Your task to perform on an android device: toggle javascript in the chrome app Image 0: 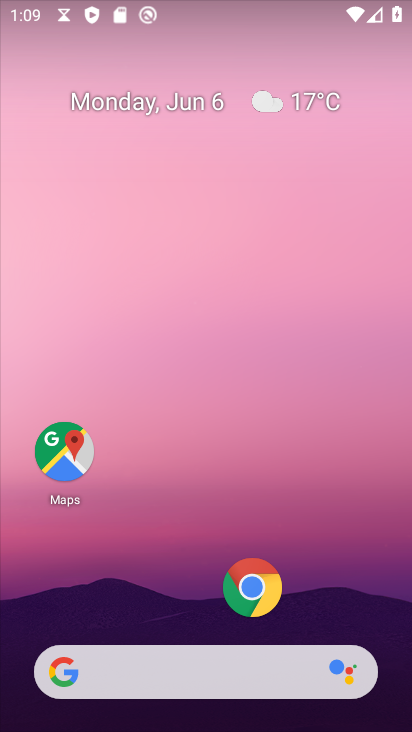
Step 0: click (243, 589)
Your task to perform on an android device: toggle javascript in the chrome app Image 1: 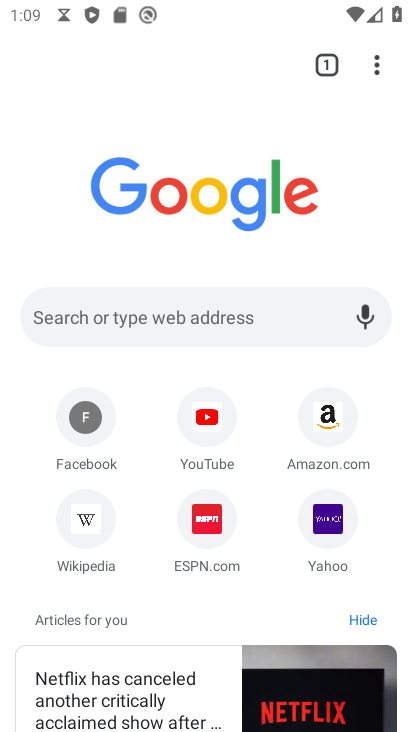
Step 1: click (377, 61)
Your task to perform on an android device: toggle javascript in the chrome app Image 2: 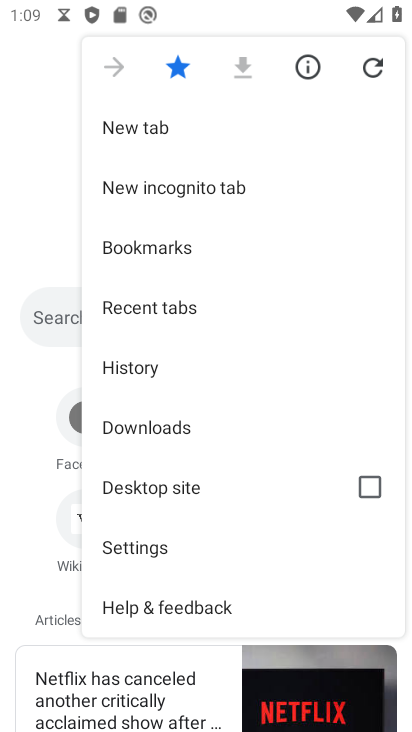
Step 2: drag from (225, 550) to (265, 257)
Your task to perform on an android device: toggle javascript in the chrome app Image 3: 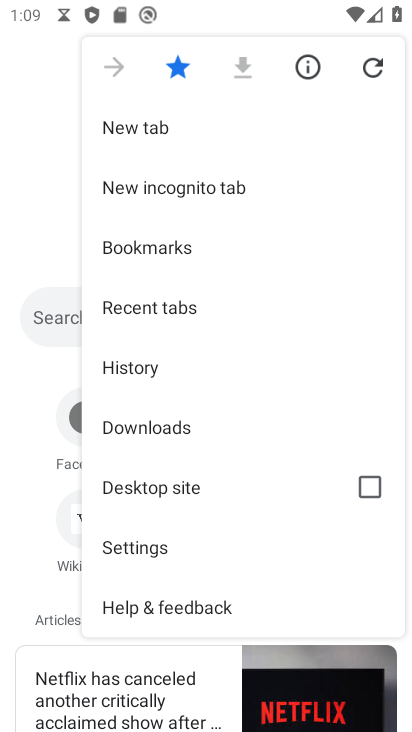
Step 3: click (161, 554)
Your task to perform on an android device: toggle javascript in the chrome app Image 4: 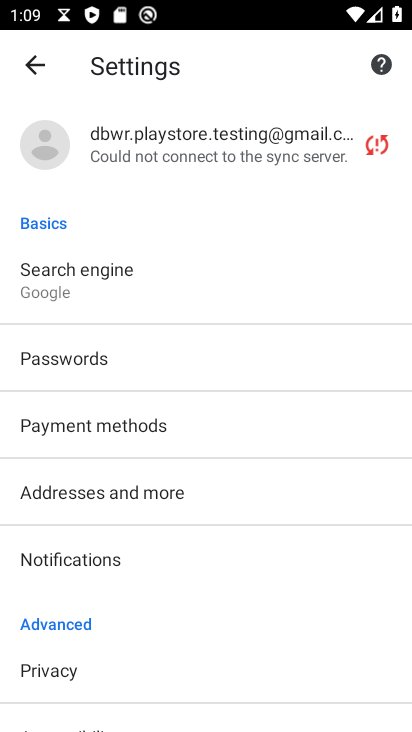
Step 4: drag from (178, 515) to (272, 152)
Your task to perform on an android device: toggle javascript in the chrome app Image 5: 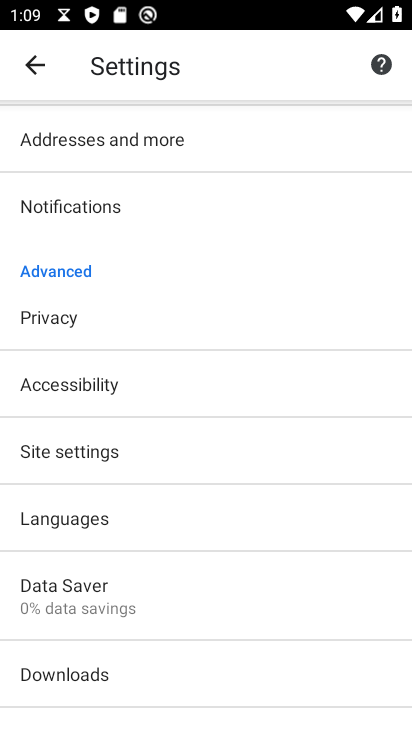
Step 5: click (94, 445)
Your task to perform on an android device: toggle javascript in the chrome app Image 6: 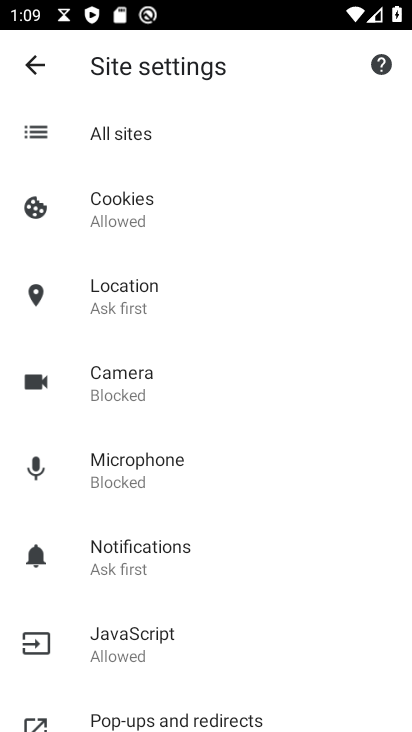
Step 6: click (143, 656)
Your task to perform on an android device: toggle javascript in the chrome app Image 7: 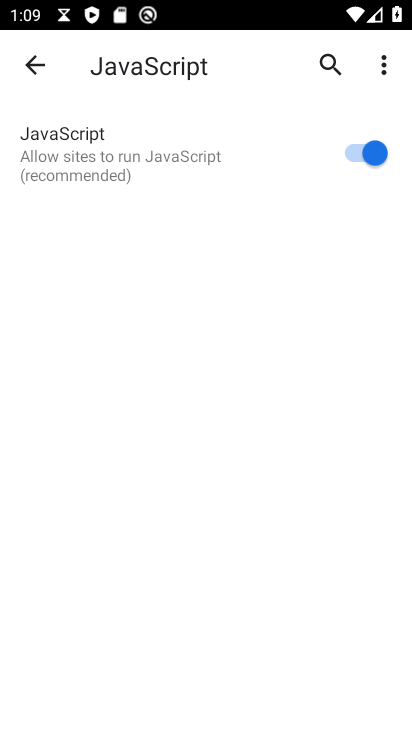
Step 7: click (346, 156)
Your task to perform on an android device: toggle javascript in the chrome app Image 8: 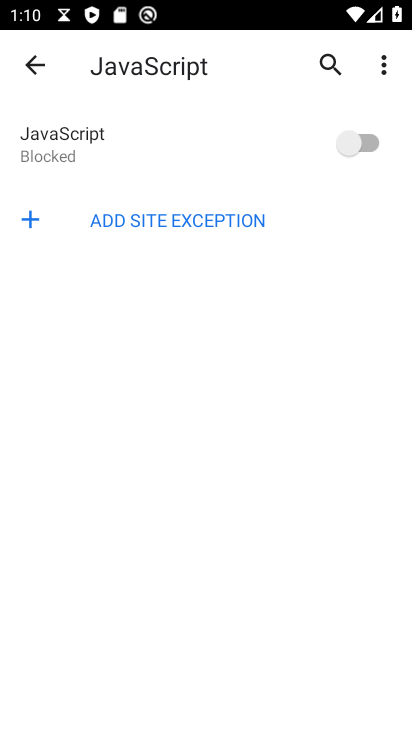
Step 8: task complete